Your task to perform on an android device: Open Youtube and go to "Your channel" Image 0: 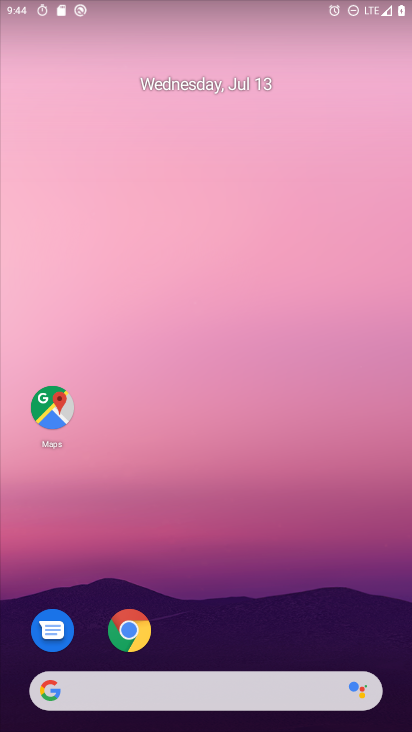
Step 0: drag from (383, 657) to (204, 5)
Your task to perform on an android device: Open Youtube and go to "Your channel" Image 1: 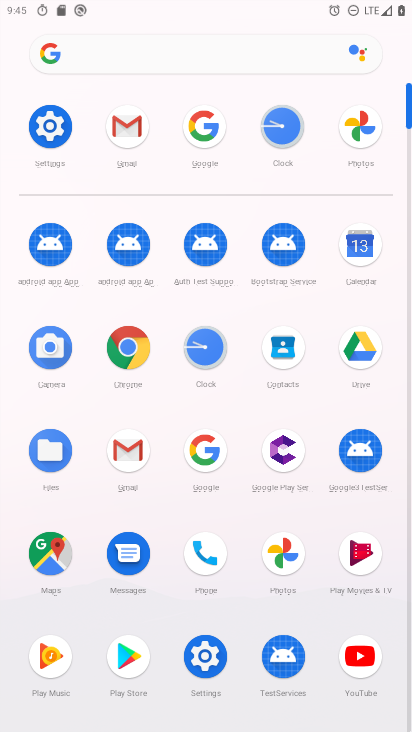
Step 1: click (352, 650)
Your task to perform on an android device: Open Youtube and go to "Your channel" Image 2: 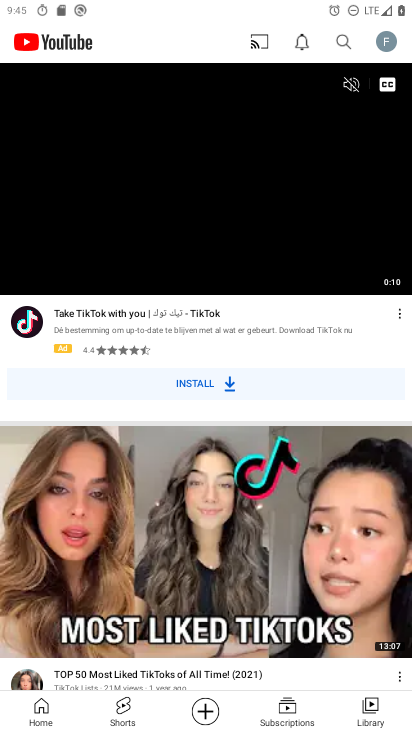
Step 2: click (391, 44)
Your task to perform on an android device: Open Youtube and go to "Your channel" Image 3: 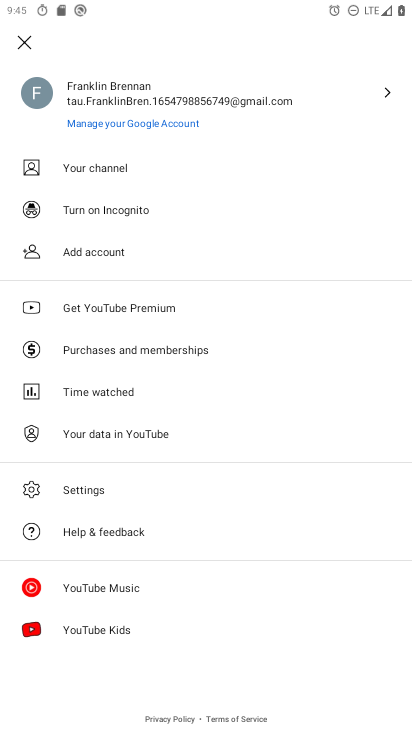
Step 3: click (124, 171)
Your task to perform on an android device: Open Youtube and go to "Your channel" Image 4: 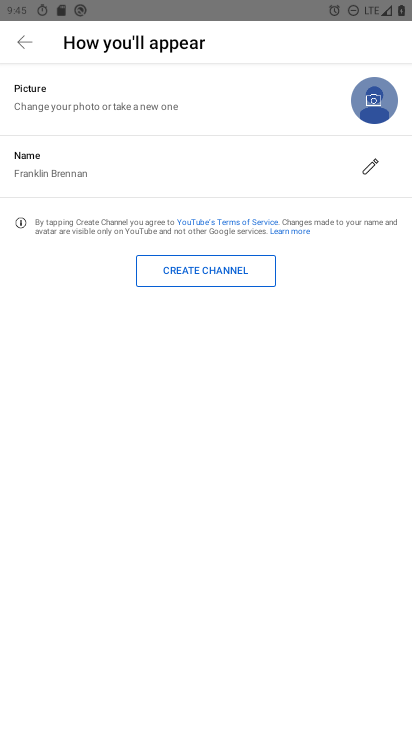
Step 4: task complete